Your task to perform on an android device: Open calendar and show me the first week of next month Image 0: 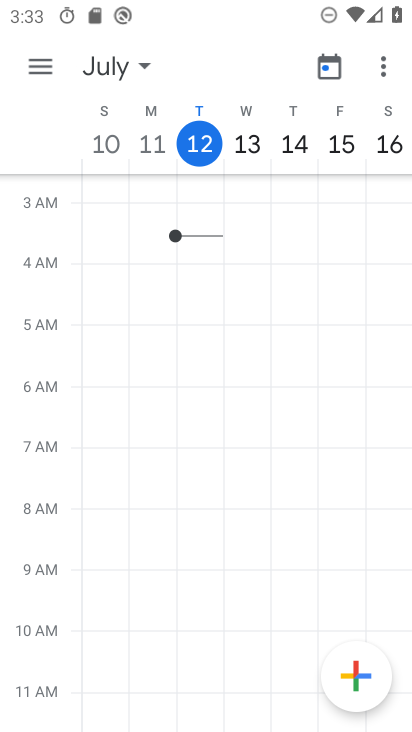
Step 0: press home button
Your task to perform on an android device: Open calendar and show me the first week of next month Image 1: 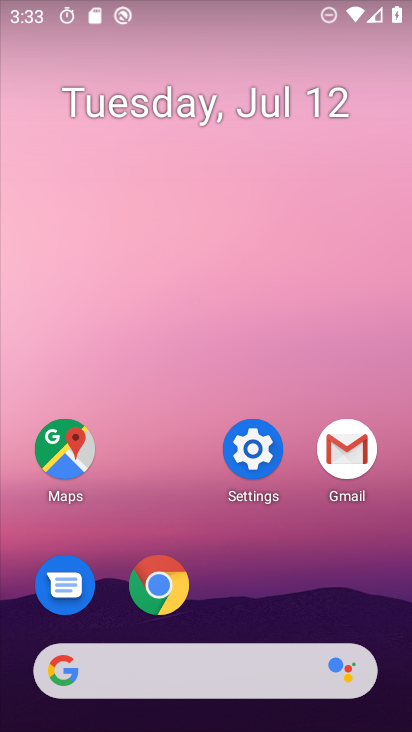
Step 1: drag from (387, 631) to (316, 87)
Your task to perform on an android device: Open calendar and show me the first week of next month Image 2: 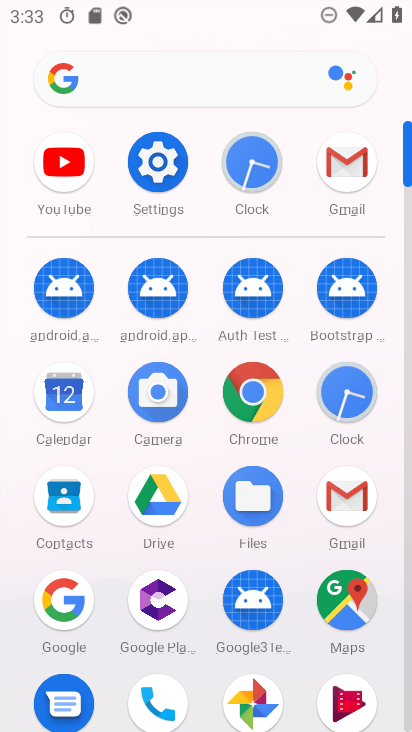
Step 2: click (64, 402)
Your task to perform on an android device: Open calendar and show me the first week of next month Image 3: 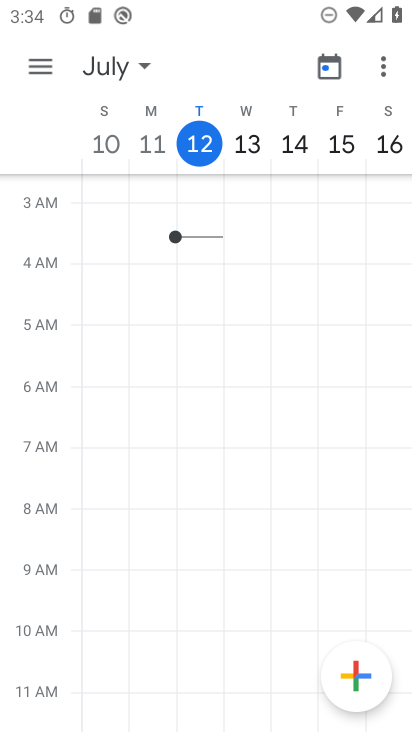
Step 3: click (143, 66)
Your task to perform on an android device: Open calendar and show me the first week of next month Image 4: 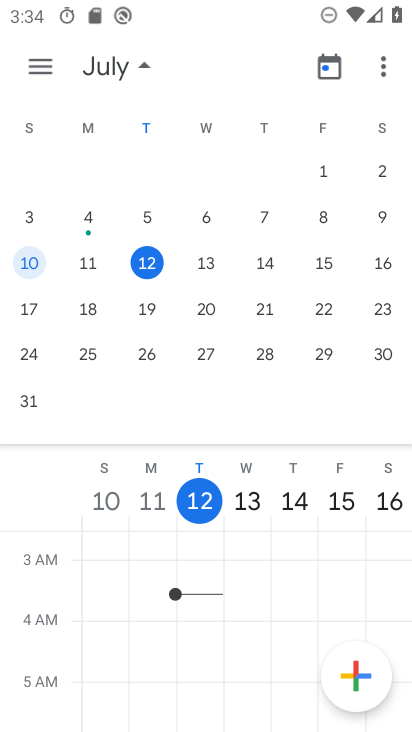
Step 4: drag from (401, 288) to (0, 280)
Your task to perform on an android device: Open calendar and show me the first week of next month Image 5: 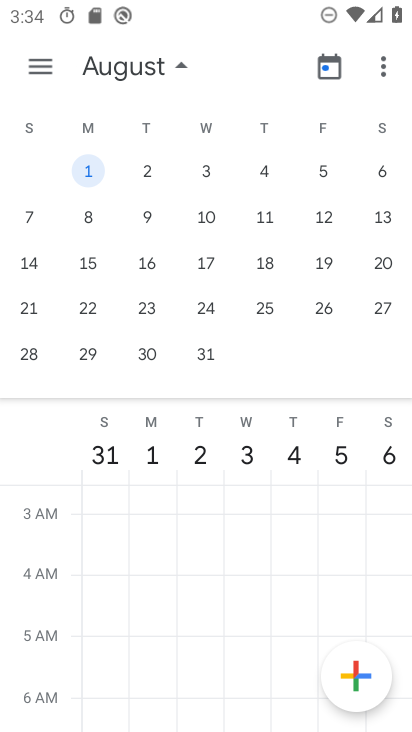
Step 5: click (151, 173)
Your task to perform on an android device: Open calendar and show me the first week of next month Image 6: 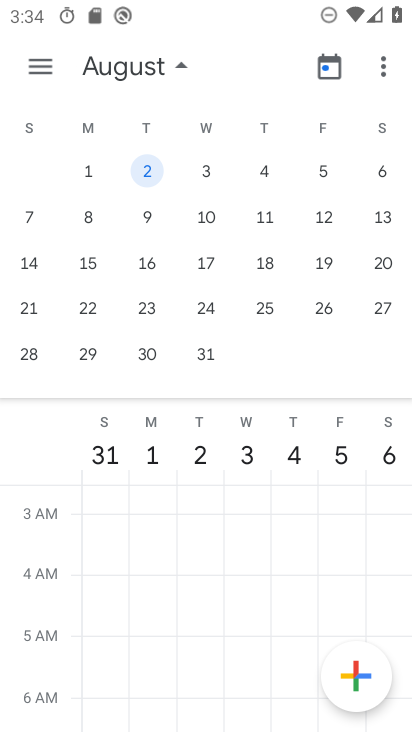
Step 6: click (34, 58)
Your task to perform on an android device: Open calendar and show me the first week of next month Image 7: 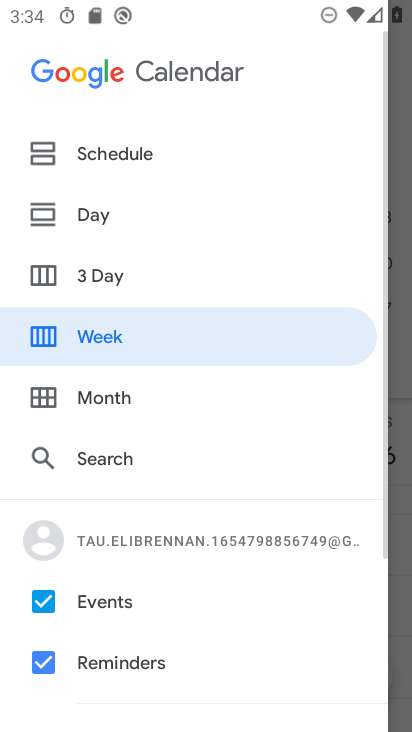
Step 7: click (87, 340)
Your task to perform on an android device: Open calendar and show me the first week of next month Image 8: 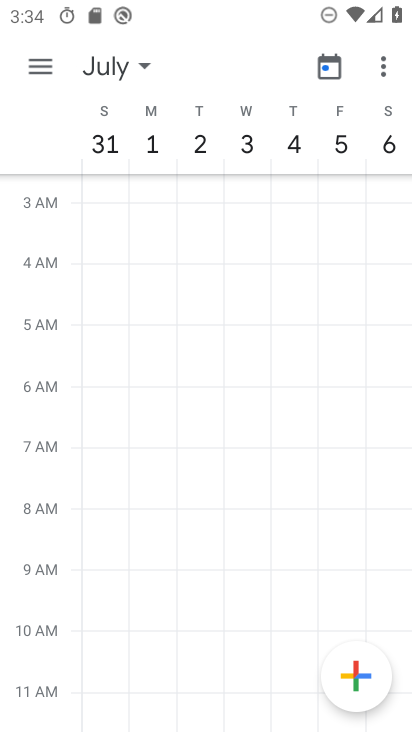
Step 8: task complete